Your task to perform on an android device: Go to network settings Image 0: 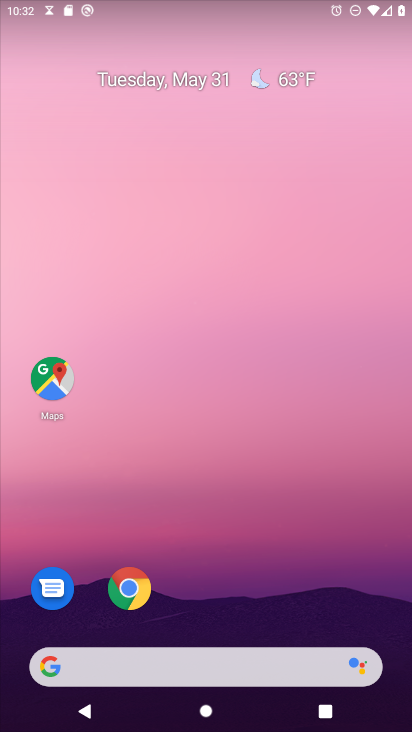
Step 0: drag from (261, 608) to (227, 144)
Your task to perform on an android device: Go to network settings Image 1: 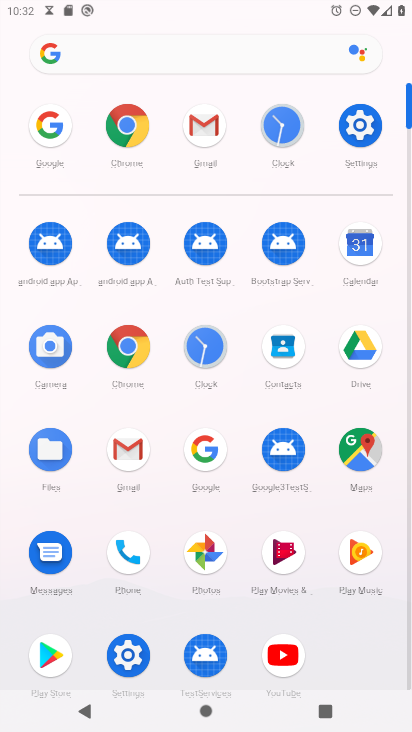
Step 1: click (359, 123)
Your task to perform on an android device: Go to network settings Image 2: 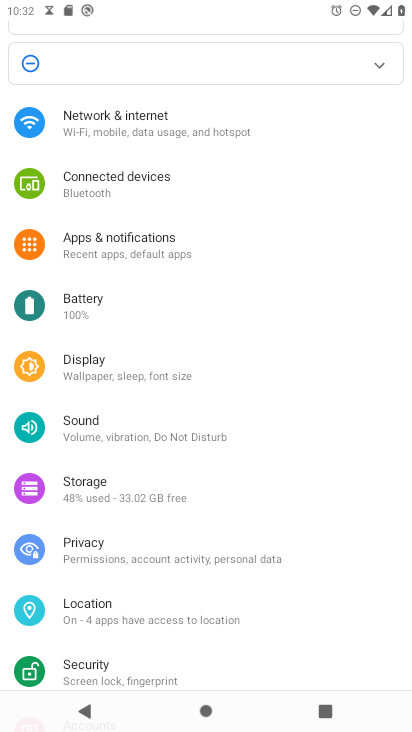
Step 2: click (143, 129)
Your task to perform on an android device: Go to network settings Image 3: 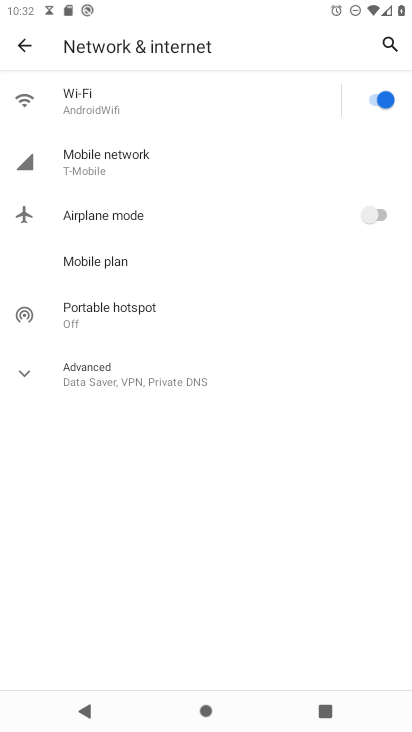
Step 3: click (135, 177)
Your task to perform on an android device: Go to network settings Image 4: 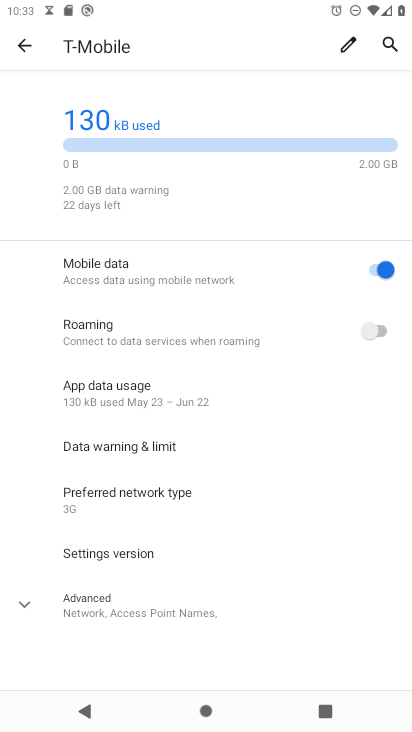
Step 4: task complete